Your task to perform on an android device: refresh tabs in the chrome app Image 0: 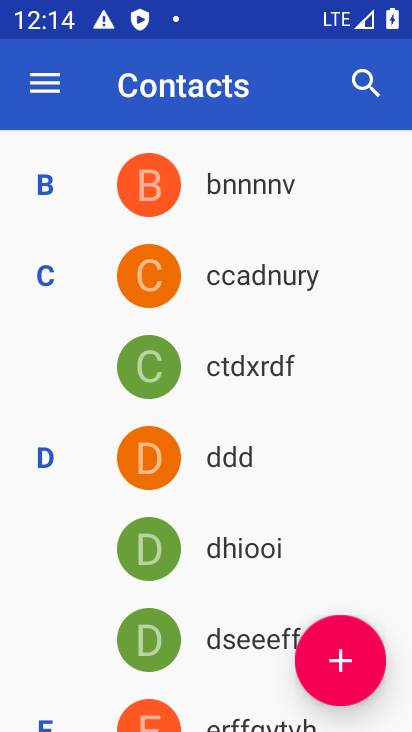
Step 0: press home button
Your task to perform on an android device: refresh tabs in the chrome app Image 1: 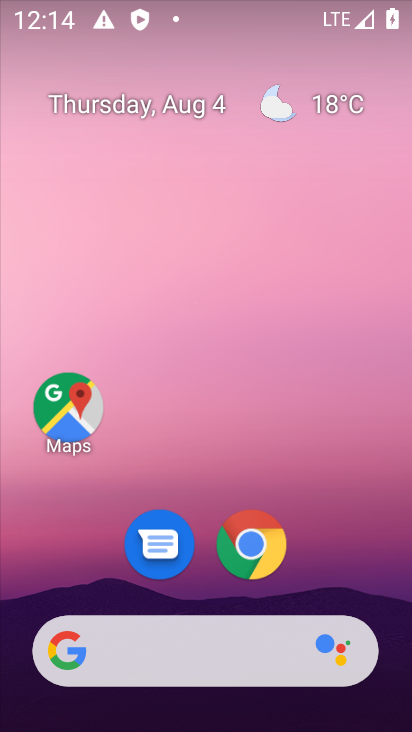
Step 1: drag from (377, 612) to (317, 130)
Your task to perform on an android device: refresh tabs in the chrome app Image 2: 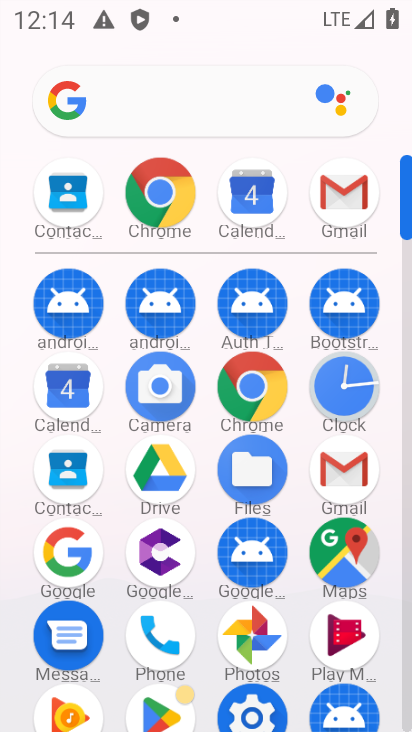
Step 2: click (251, 387)
Your task to perform on an android device: refresh tabs in the chrome app Image 3: 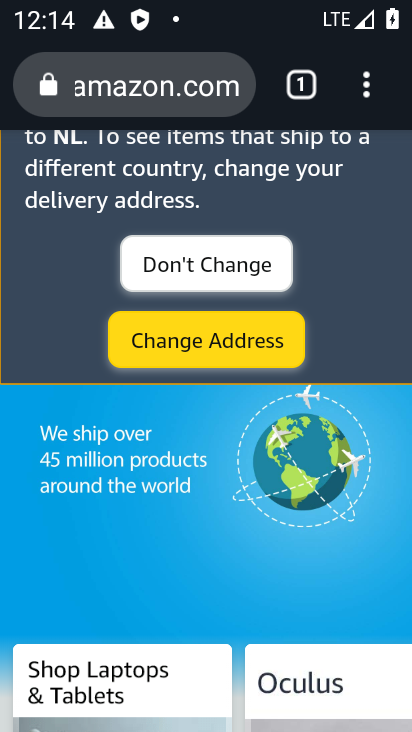
Step 3: click (370, 86)
Your task to perform on an android device: refresh tabs in the chrome app Image 4: 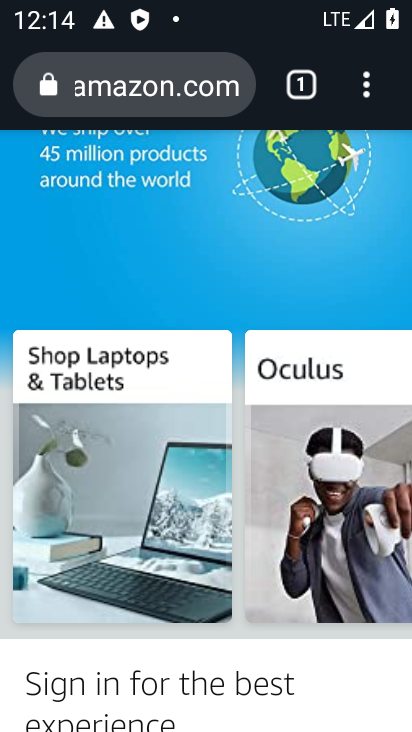
Step 4: click (361, 86)
Your task to perform on an android device: refresh tabs in the chrome app Image 5: 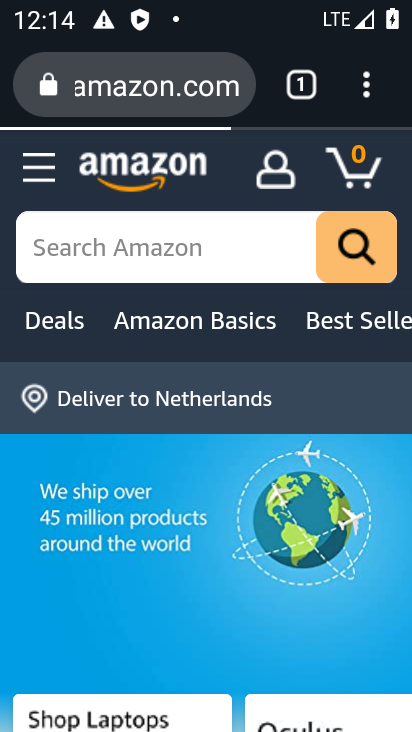
Step 5: click (361, 86)
Your task to perform on an android device: refresh tabs in the chrome app Image 6: 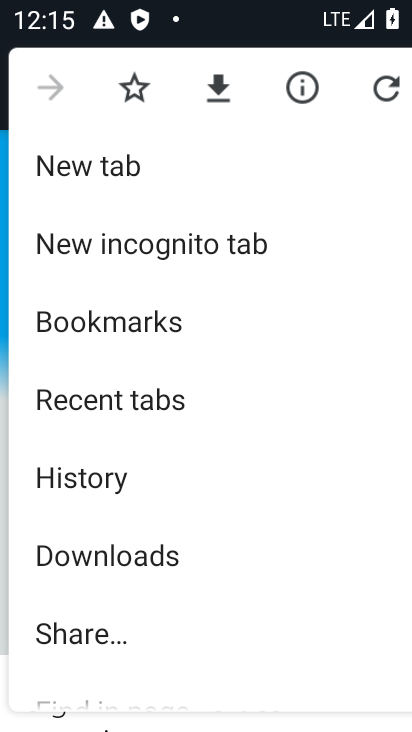
Step 6: click (379, 96)
Your task to perform on an android device: refresh tabs in the chrome app Image 7: 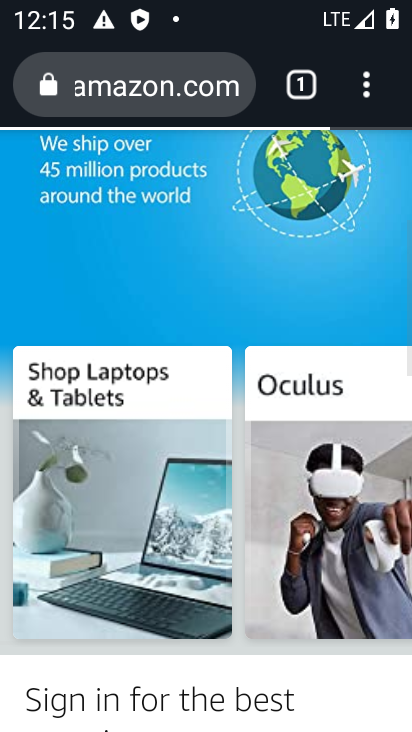
Step 7: task complete